Your task to perform on an android device: Open wifi settings Image 0: 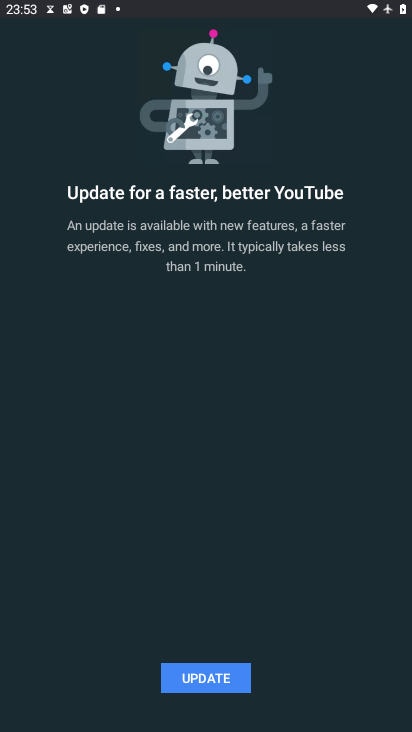
Step 0: press home button
Your task to perform on an android device: Open wifi settings Image 1: 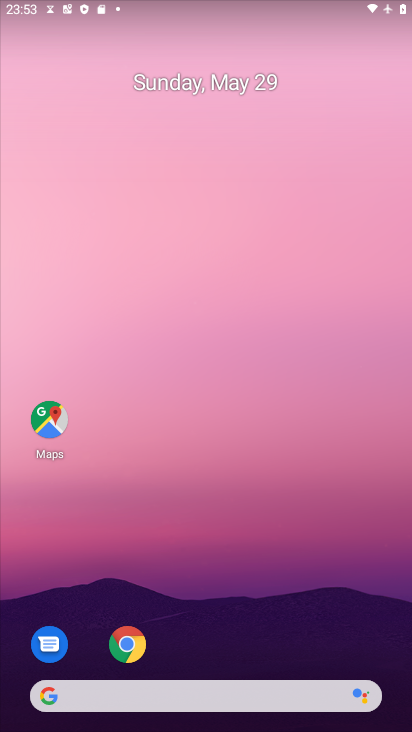
Step 1: drag from (289, 584) to (306, 216)
Your task to perform on an android device: Open wifi settings Image 2: 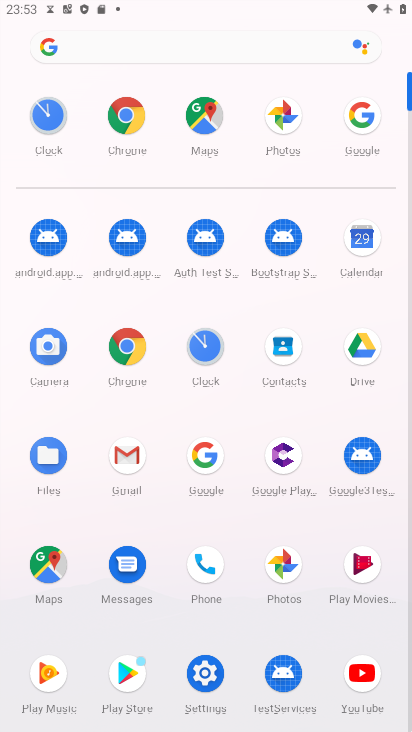
Step 2: drag from (241, 618) to (240, 313)
Your task to perform on an android device: Open wifi settings Image 3: 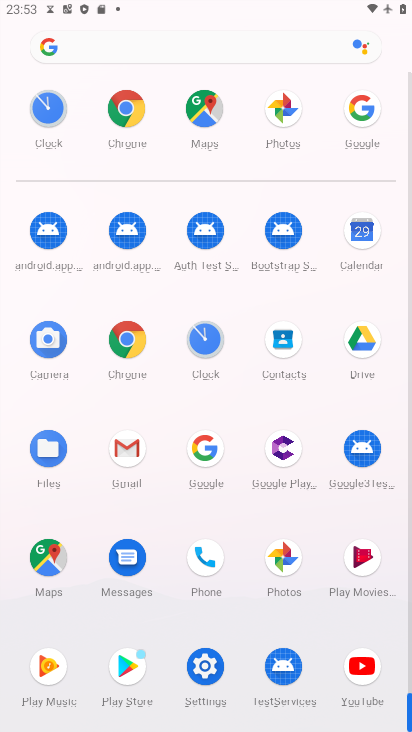
Step 3: click (208, 658)
Your task to perform on an android device: Open wifi settings Image 4: 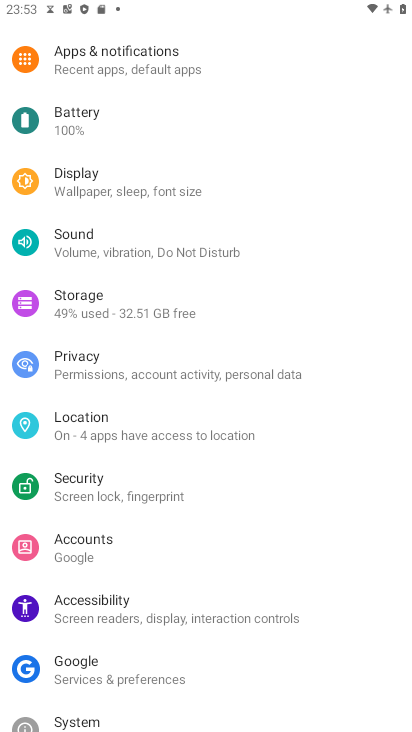
Step 4: drag from (126, 73) to (142, 481)
Your task to perform on an android device: Open wifi settings Image 5: 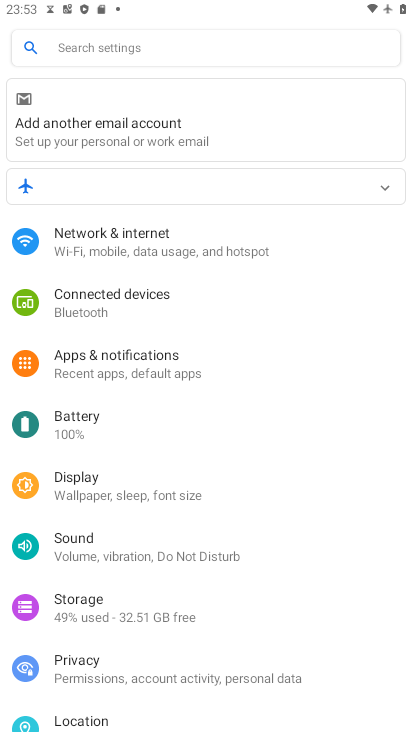
Step 5: click (116, 234)
Your task to perform on an android device: Open wifi settings Image 6: 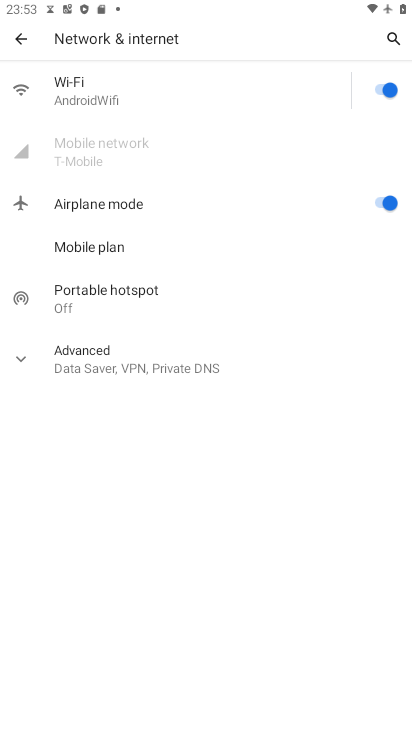
Step 6: click (190, 104)
Your task to perform on an android device: Open wifi settings Image 7: 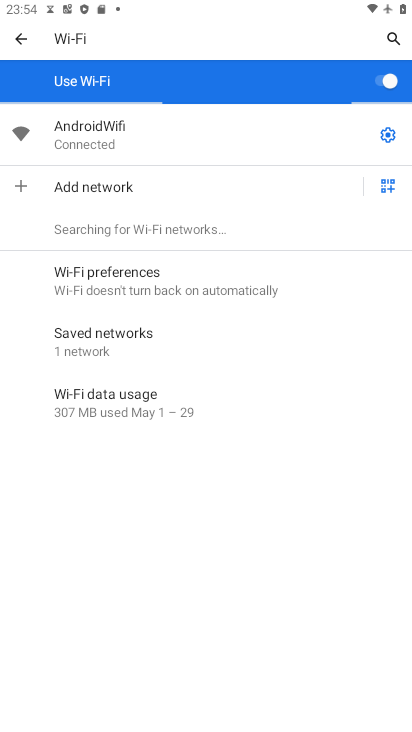
Step 7: task complete